Your task to perform on an android device: Open Yahoo.com Image 0: 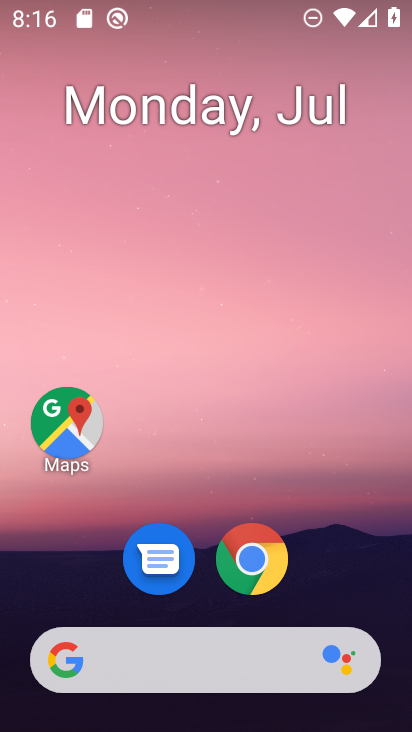
Step 0: click (267, 562)
Your task to perform on an android device: Open Yahoo.com Image 1: 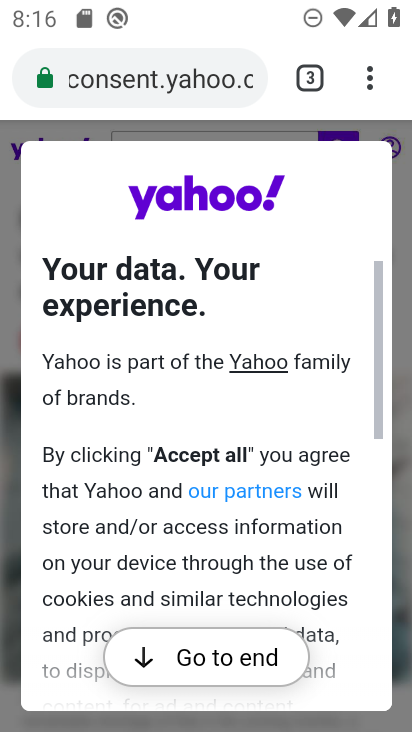
Step 1: task complete